Your task to perform on an android device: turn off airplane mode Image 0: 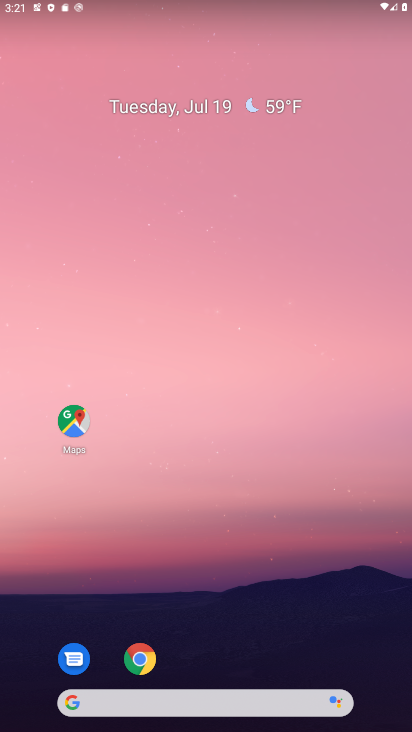
Step 0: drag from (181, 699) to (262, 166)
Your task to perform on an android device: turn off airplane mode Image 1: 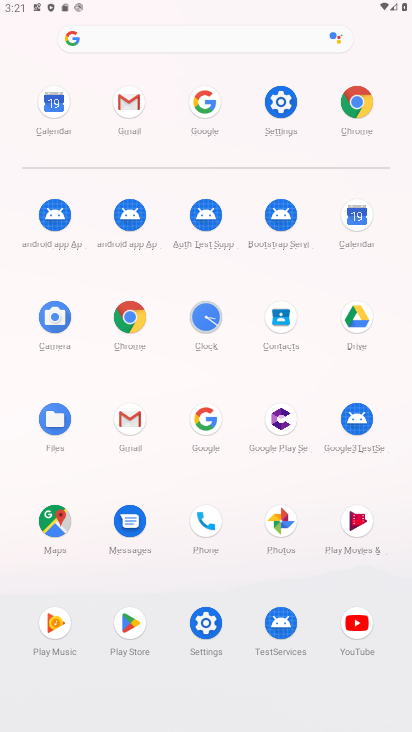
Step 1: click (282, 99)
Your task to perform on an android device: turn off airplane mode Image 2: 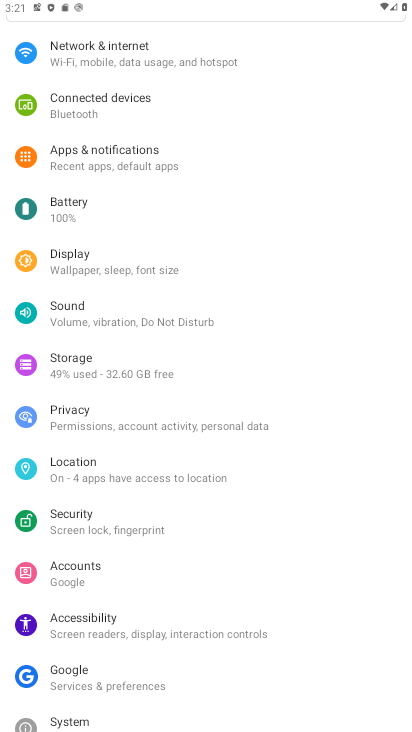
Step 2: click (190, 61)
Your task to perform on an android device: turn off airplane mode Image 3: 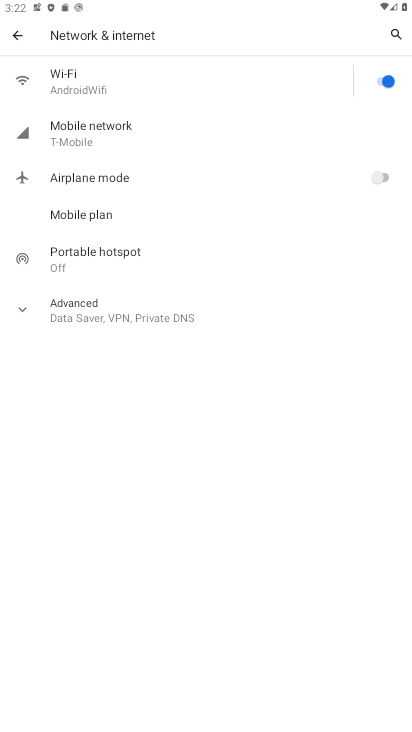
Step 3: task complete